Your task to perform on an android device: Go to Android settings Image 0: 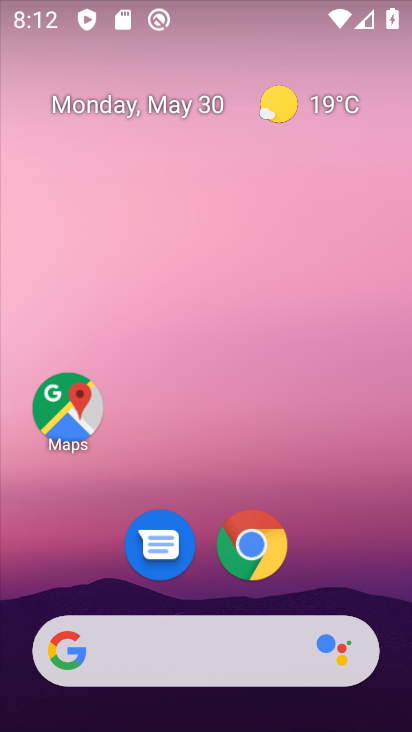
Step 0: drag from (320, 566) to (306, 385)
Your task to perform on an android device: Go to Android settings Image 1: 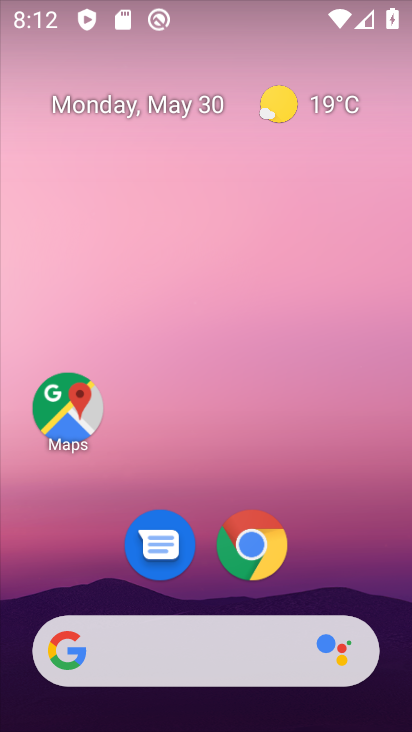
Step 1: drag from (346, 534) to (303, 205)
Your task to perform on an android device: Go to Android settings Image 2: 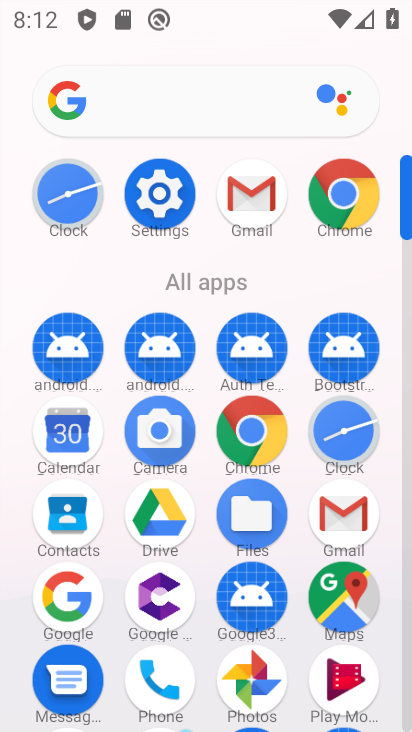
Step 2: click (177, 208)
Your task to perform on an android device: Go to Android settings Image 3: 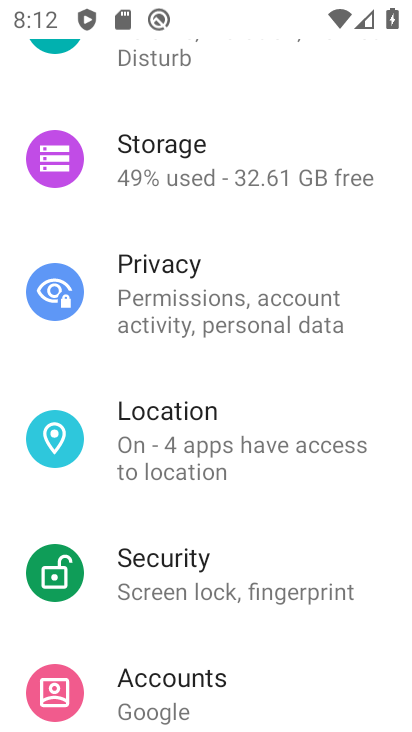
Step 3: drag from (313, 535) to (302, 6)
Your task to perform on an android device: Go to Android settings Image 4: 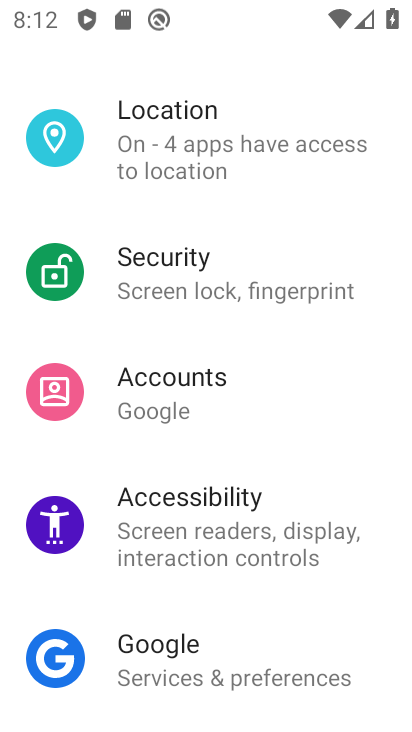
Step 4: drag from (287, 602) to (282, 178)
Your task to perform on an android device: Go to Android settings Image 5: 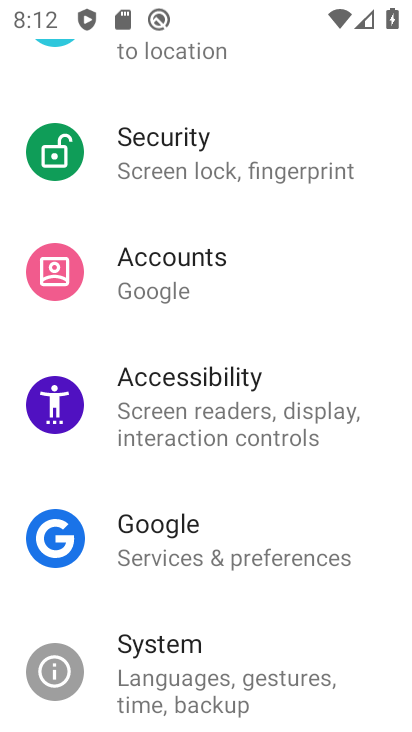
Step 5: drag from (244, 610) to (241, 200)
Your task to perform on an android device: Go to Android settings Image 6: 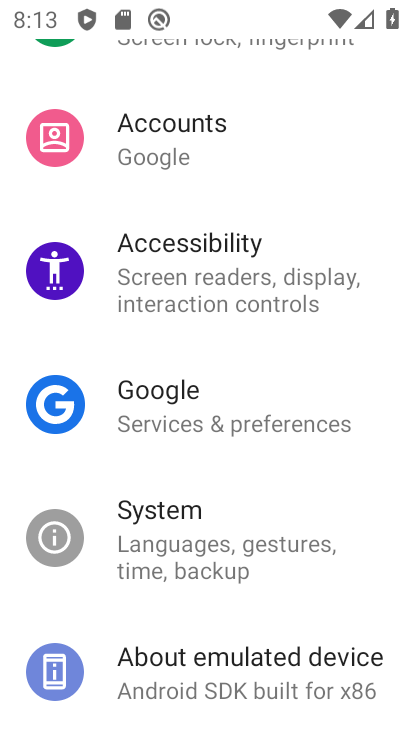
Step 6: click (189, 687)
Your task to perform on an android device: Go to Android settings Image 7: 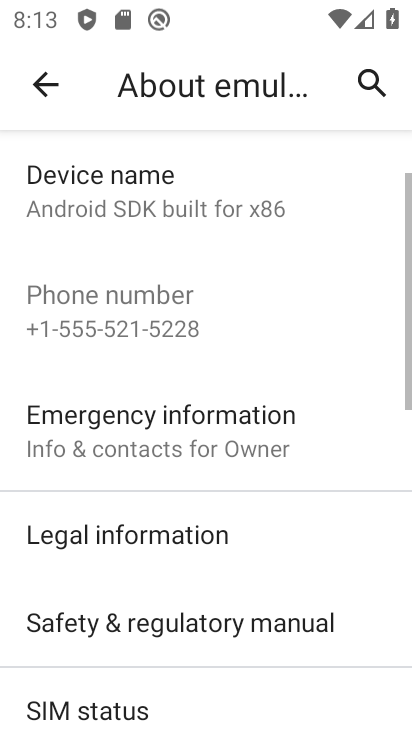
Step 7: drag from (288, 577) to (315, 397)
Your task to perform on an android device: Go to Android settings Image 8: 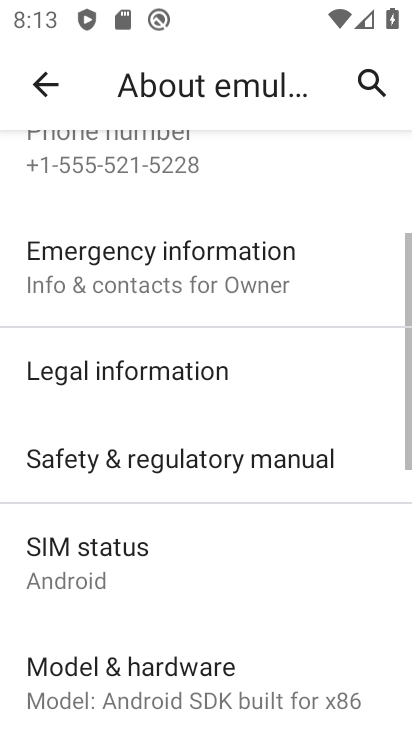
Step 8: drag from (262, 542) to (278, 183)
Your task to perform on an android device: Go to Android settings Image 9: 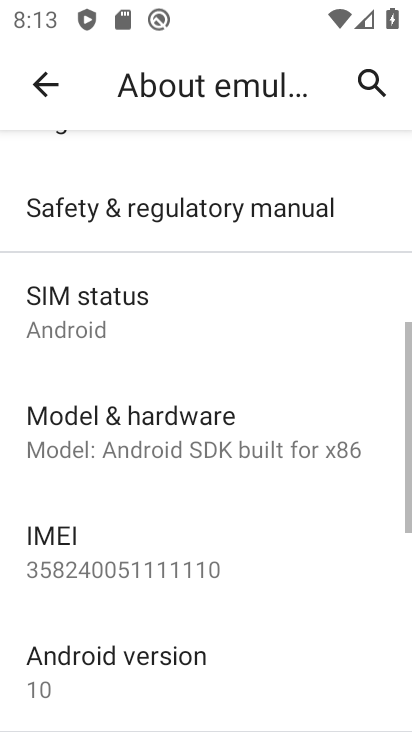
Step 9: click (75, 650)
Your task to perform on an android device: Go to Android settings Image 10: 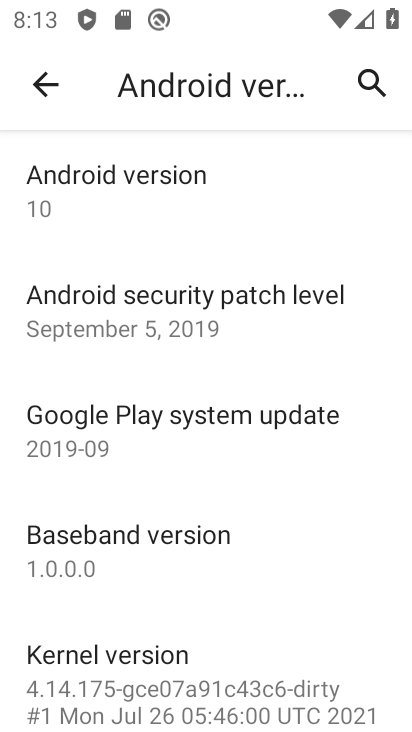
Step 10: task complete